Your task to perform on an android device: toggle notifications settings in the gmail app Image 0: 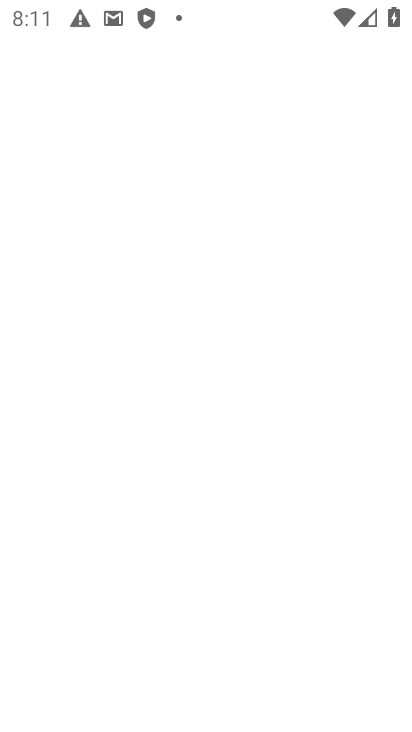
Step 0: press home button
Your task to perform on an android device: toggle notifications settings in the gmail app Image 1: 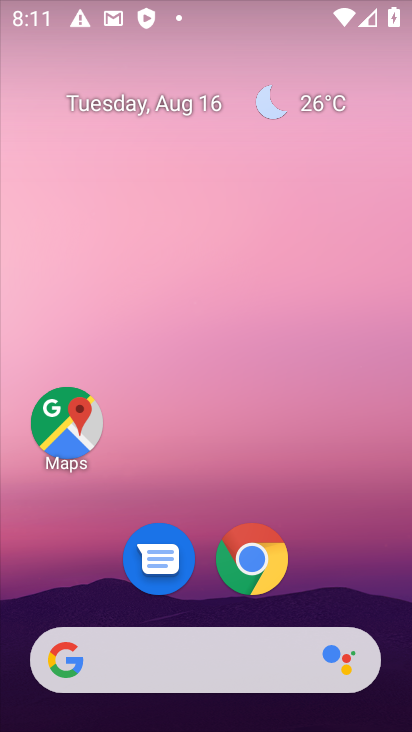
Step 1: drag from (263, 633) to (207, 0)
Your task to perform on an android device: toggle notifications settings in the gmail app Image 2: 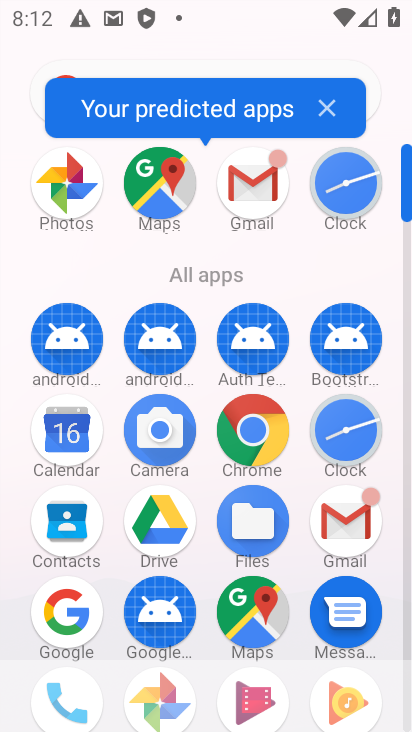
Step 2: click (253, 186)
Your task to perform on an android device: toggle notifications settings in the gmail app Image 3: 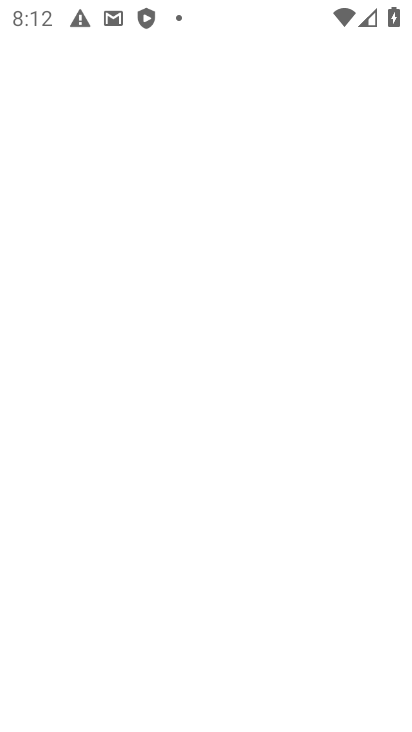
Step 3: task complete